Your task to perform on an android device: How much does a 3 bedroom apartment rent for in Philadelphia? Image 0: 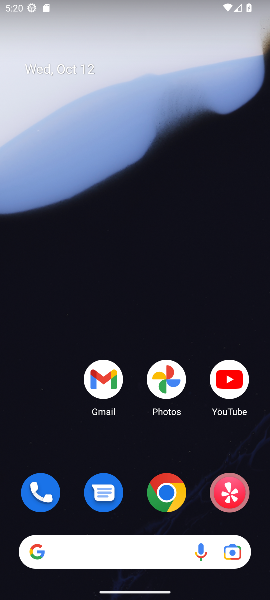
Step 0: click (177, 496)
Your task to perform on an android device: How much does a 3 bedroom apartment rent for in Philadelphia? Image 1: 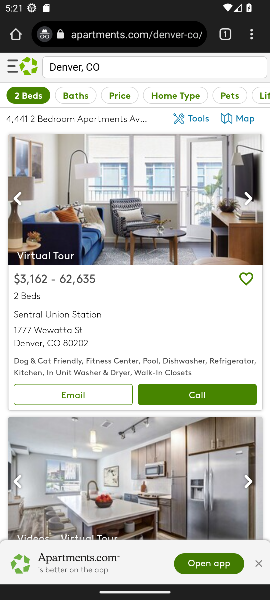
Step 1: press back button
Your task to perform on an android device: How much does a 3 bedroom apartment rent for in Philadelphia? Image 2: 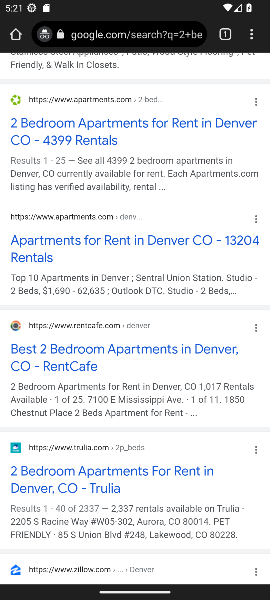
Step 2: drag from (163, 150) to (151, 524)
Your task to perform on an android device: How much does a 3 bedroom apartment rent for in Philadelphia? Image 3: 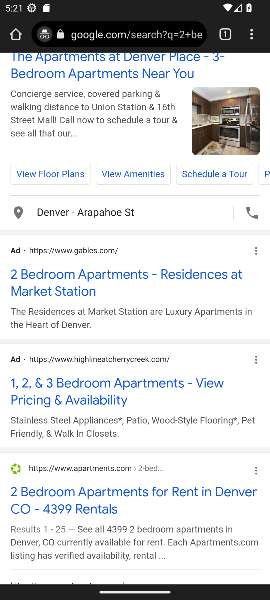
Step 3: click (109, 40)
Your task to perform on an android device: How much does a 3 bedroom apartment rent for in Philadelphia? Image 4: 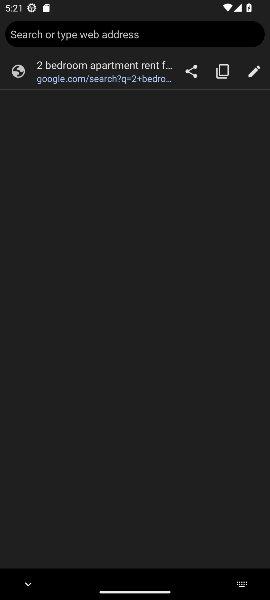
Step 4: type "3 bedroom apartment rent for in Philadelphia"
Your task to perform on an android device: How much does a 3 bedroom apartment rent for in Philadelphia? Image 5: 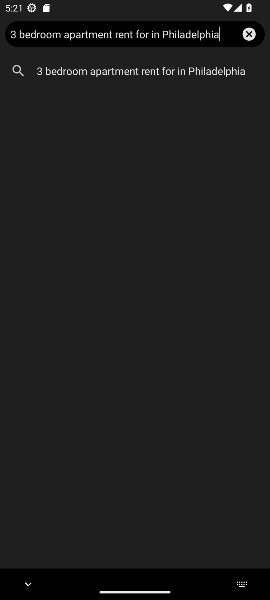
Step 5: click (116, 79)
Your task to perform on an android device: How much does a 3 bedroom apartment rent for in Philadelphia? Image 6: 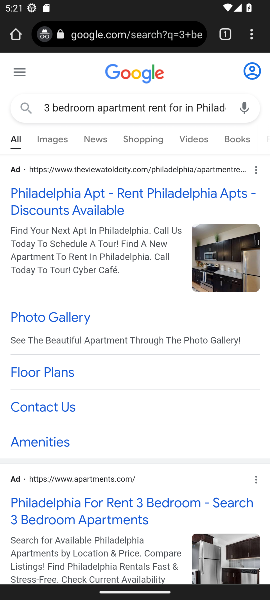
Step 6: drag from (89, 450) to (86, 75)
Your task to perform on an android device: How much does a 3 bedroom apartment rent for in Philadelphia? Image 7: 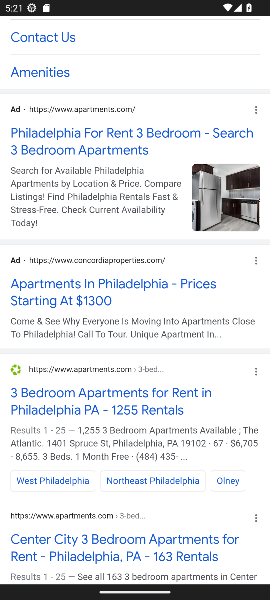
Step 7: drag from (125, 424) to (126, 201)
Your task to perform on an android device: How much does a 3 bedroom apartment rent for in Philadelphia? Image 8: 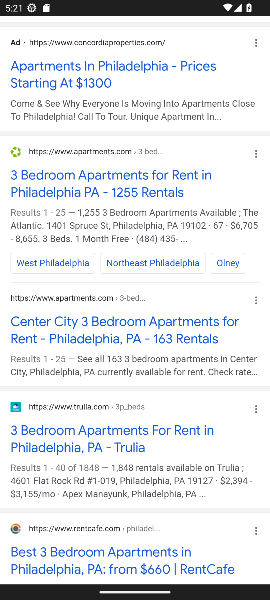
Step 8: click (116, 224)
Your task to perform on an android device: How much does a 3 bedroom apartment rent for in Philadelphia? Image 9: 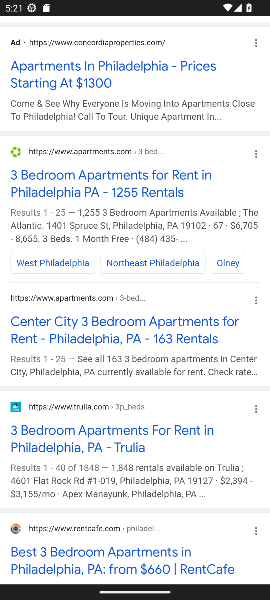
Step 9: click (120, 176)
Your task to perform on an android device: How much does a 3 bedroom apartment rent for in Philadelphia? Image 10: 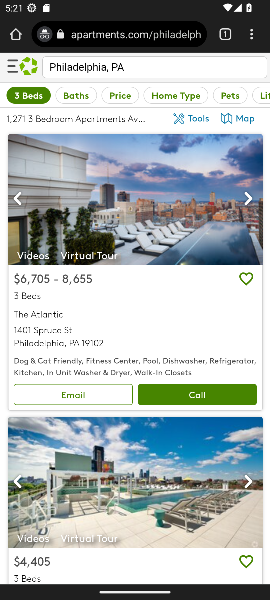
Step 10: task complete